Your task to perform on an android device: read, delete, or share a saved page in the chrome app Image 0: 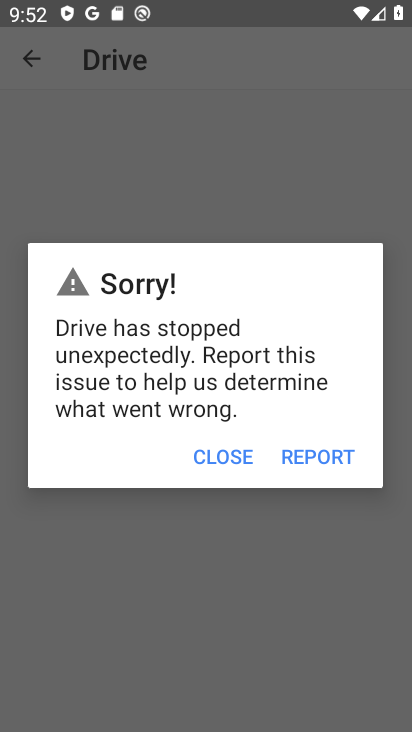
Step 0: press back button
Your task to perform on an android device: read, delete, or share a saved page in the chrome app Image 1: 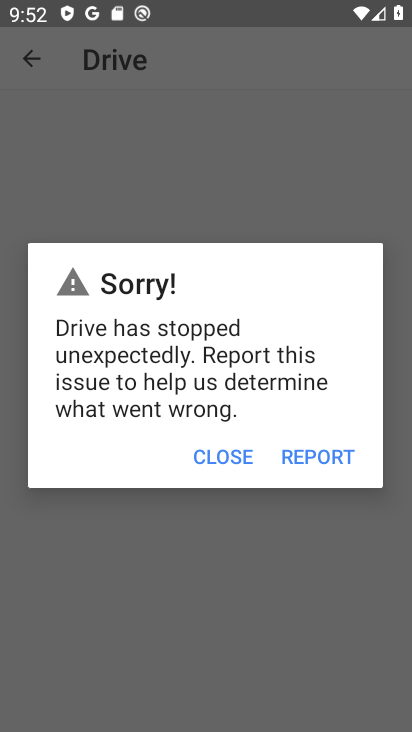
Step 1: press home button
Your task to perform on an android device: read, delete, or share a saved page in the chrome app Image 2: 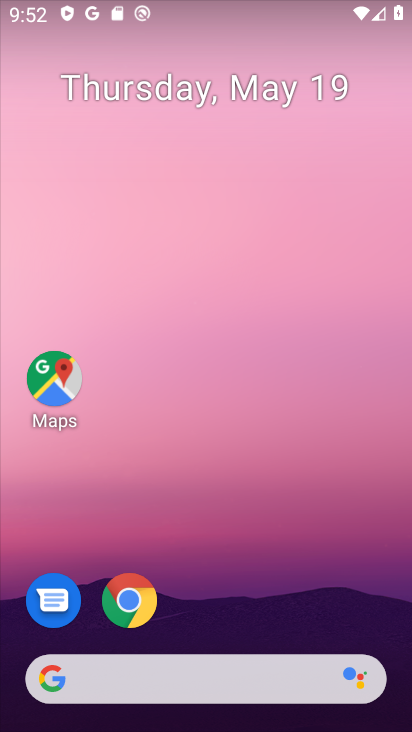
Step 2: drag from (234, 556) to (245, 15)
Your task to perform on an android device: read, delete, or share a saved page in the chrome app Image 3: 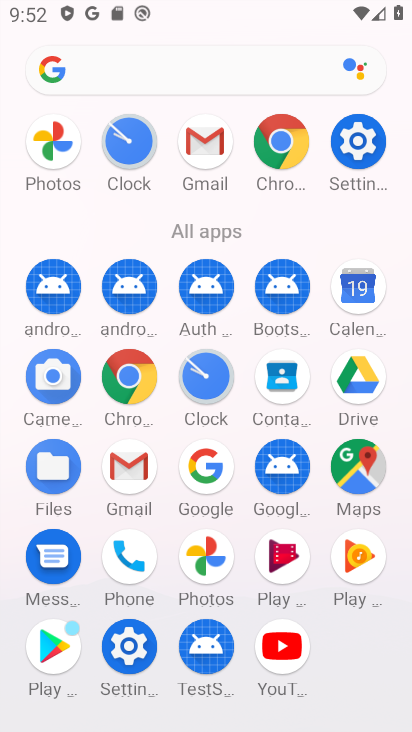
Step 3: drag from (9, 557) to (17, 236)
Your task to perform on an android device: read, delete, or share a saved page in the chrome app Image 4: 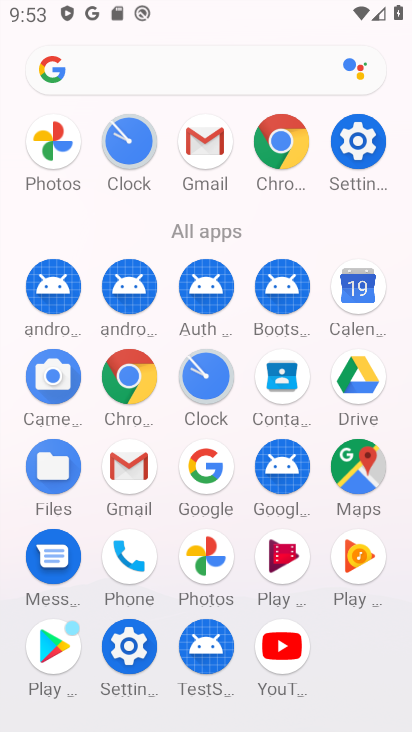
Step 4: click (123, 371)
Your task to perform on an android device: read, delete, or share a saved page in the chrome app Image 5: 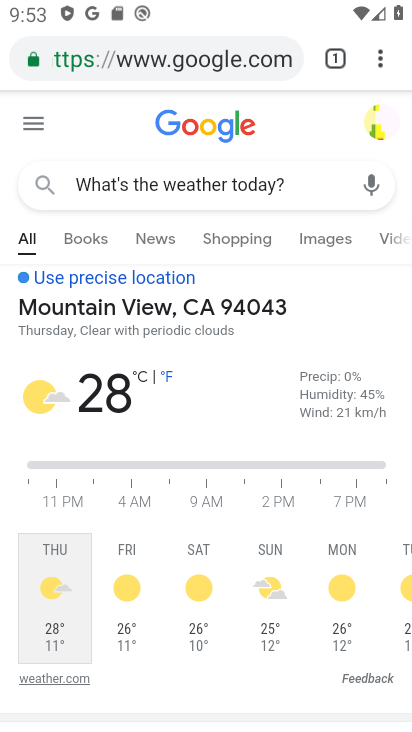
Step 5: task complete